Your task to perform on an android device: open a bookmark in the chrome app Image 0: 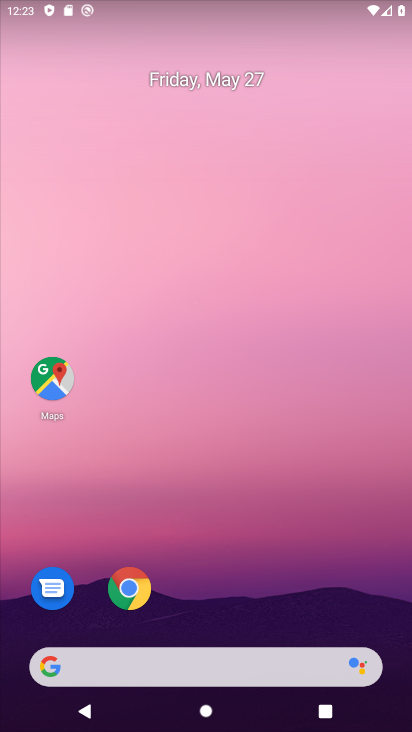
Step 0: click (107, 583)
Your task to perform on an android device: open a bookmark in the chrome app Image 1: 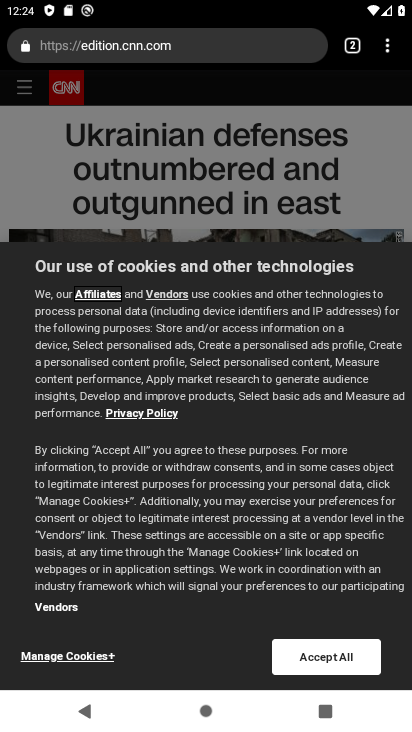
Step 1: click (388, 43)
Your task to perform on an android device: open a bookmark in the chrome app Image 2: 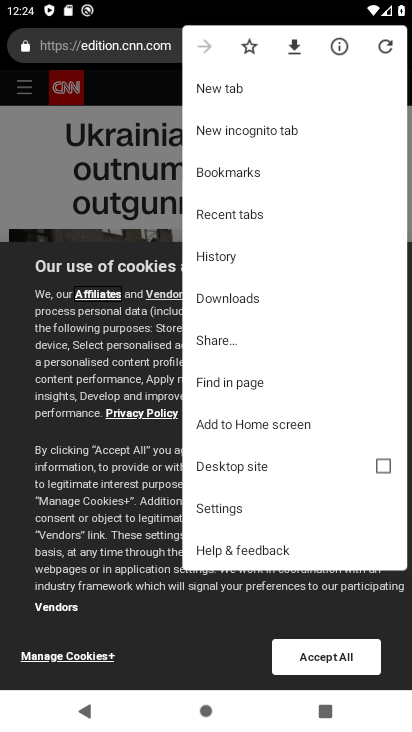
Step 2: click (240, 156)
Your task to perform on an android device: open a bookmark in the chrome app Image 3: 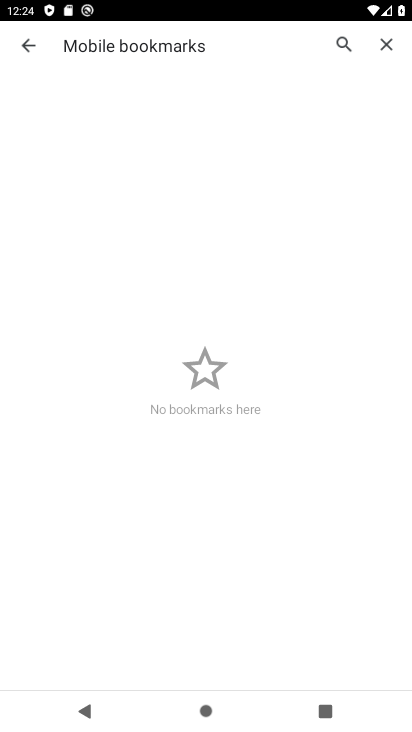
Step 3: task complete